Your task to perform on an android device: turn off priority inbox in the gmail app Image 0: 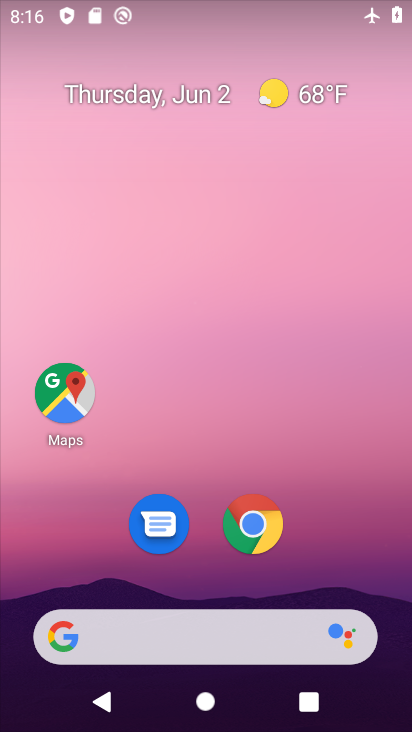
Step 0: drag from (312, 561) to (329, 60)
Your task to perform on an android device: turn off priority inbox in the gmail app Image 1: 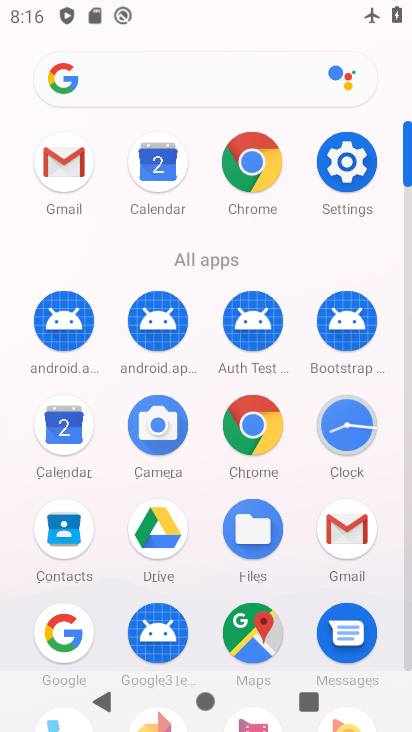
Step 1: click (54, 159)
Your task to perform on an android device: turn off priority inbox in the gmail app Image 2: 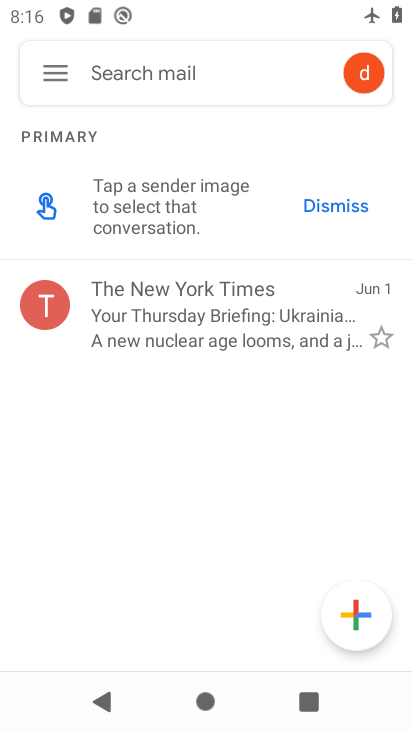
Step 2: click (55, 77)
Your task to perform on an android device: turn off priority inbox in the gmail app Image 3: 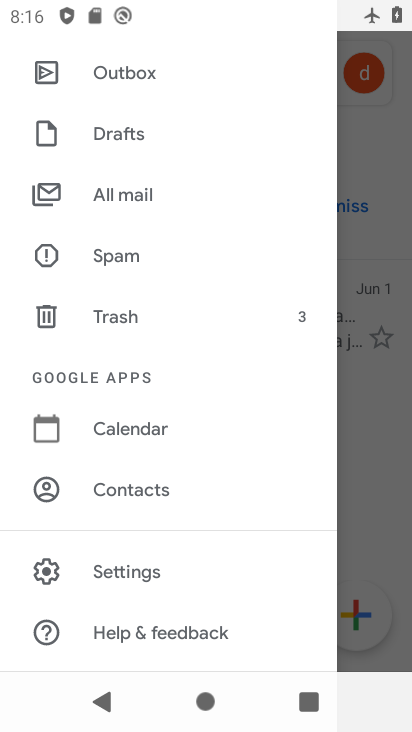
Step 3: click (135, 556)
Your task to perform on an android device: turn off priority inbox in the gmail app Image 4: 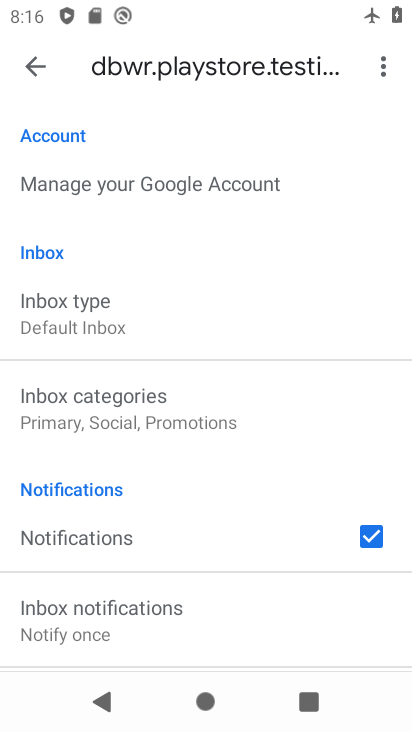
Step 4: task complete